Your task to perform on an android device: What's on my calendar tomorrow? Image 0: 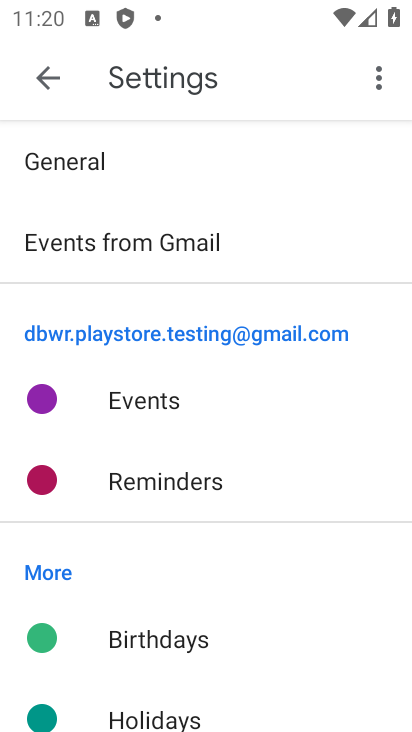
Step 0: press home button
Your task to perform on an android device: What's on my calendar tomorrow? Image 1: 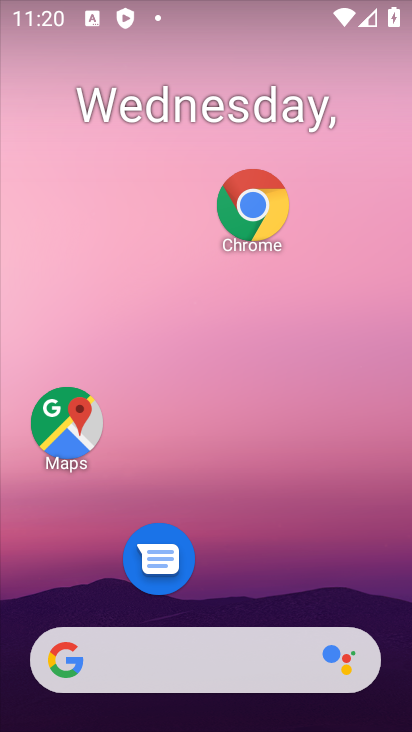
Step 1: drag from (305, 654) to (331, 9)
Your task to perform on an android device: What's on my calendar tomorrow? Image 2: 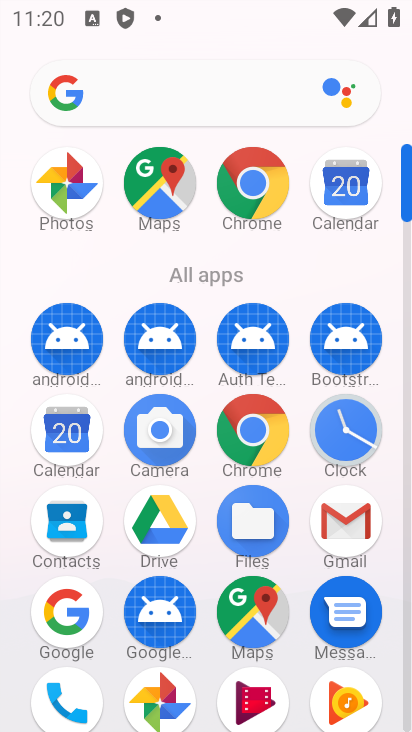
Step 2: click (69, 422)
Your task to perform on an android device: What's on my calendar tomorrow? Image 3: 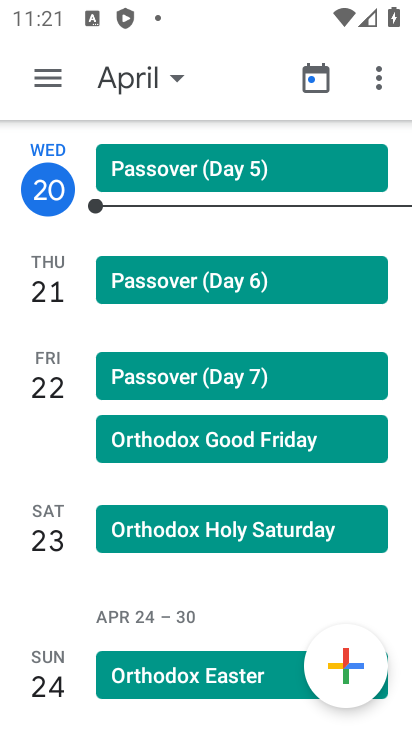
Step 3: click (162, 76)
Your task to perform on an android device: What's on my calendar tomorrow? Image 4: 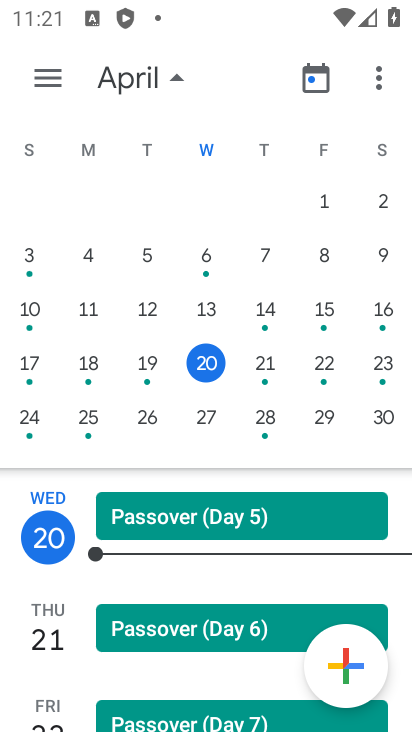
Step 4: click (259, 363)
Your task to perform on an android device: What's on my calendar tomorrow? Image 5: 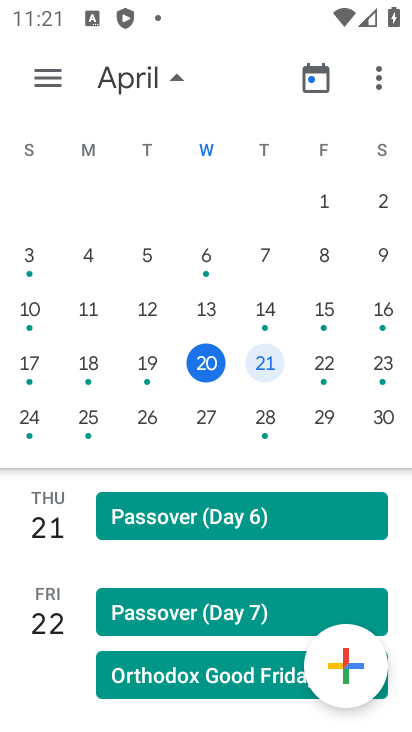
Step 5: task complete